Your task to perform on an android device: find photos in the google photos app Image 0: 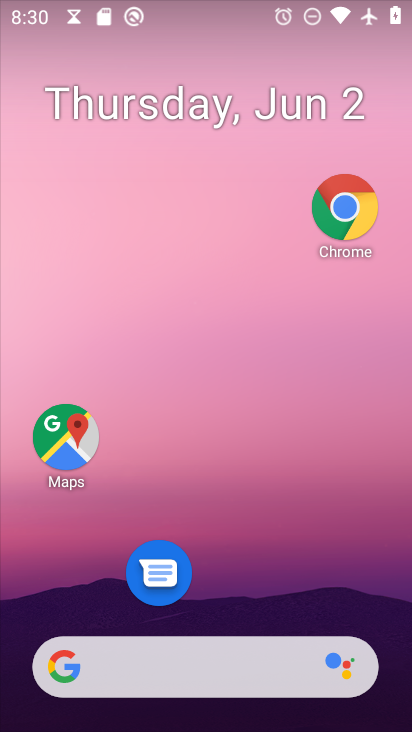
Step 0: press home button
Your task to perform on an android device: find photos in the google photos app Image 1: 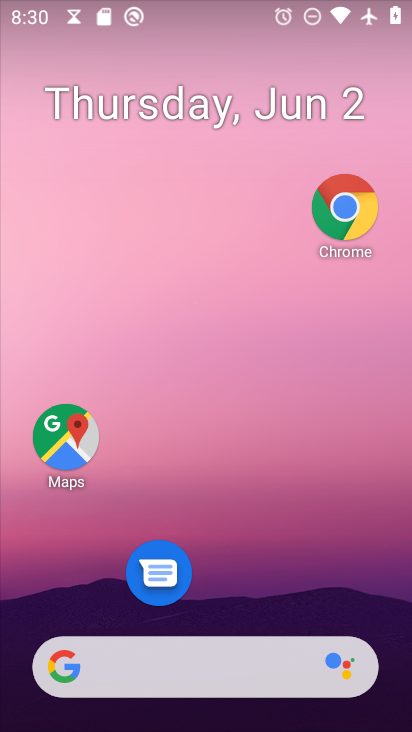
Step 1: drag from (171, 621) to (335, 104)
Your task to perform on an android device: find photos in the google photos app Image 2: 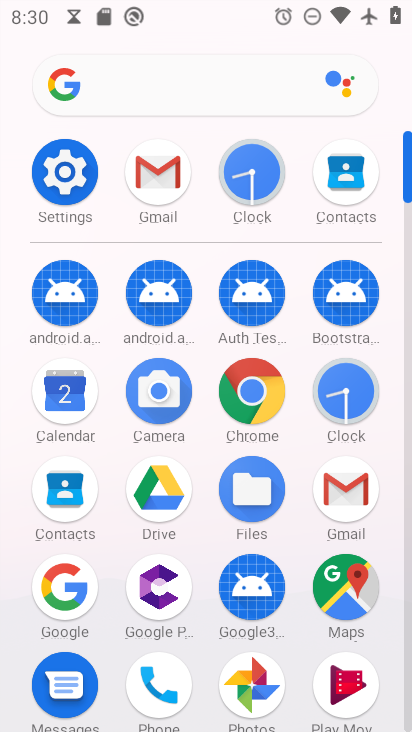
Step 2: click (255, 684)
Your task to perform on an android device: find photos in the google photos app Image 3: 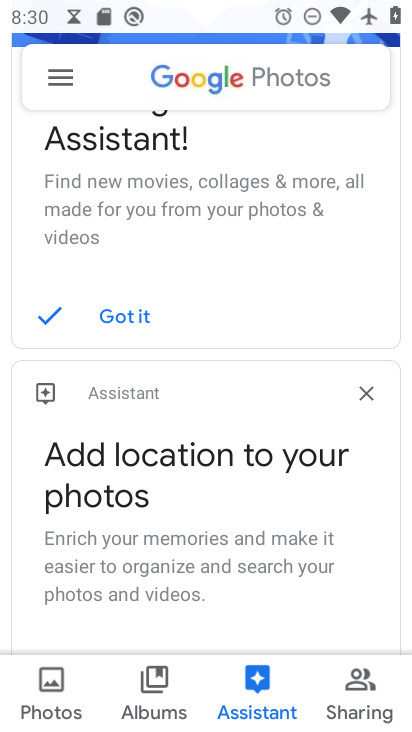
Step 3: click (55, 703)
Your task to perform on an android device: find photos in the google photos app Image 4: 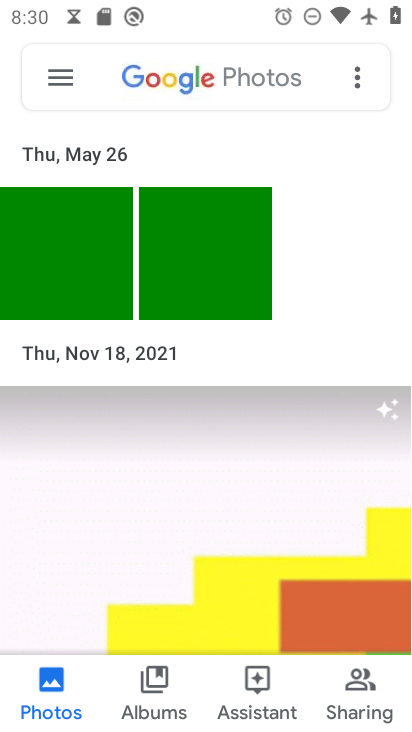
Step 4: task complete